Your task to perform on an android device: toggle improve location accuracy Image 0: 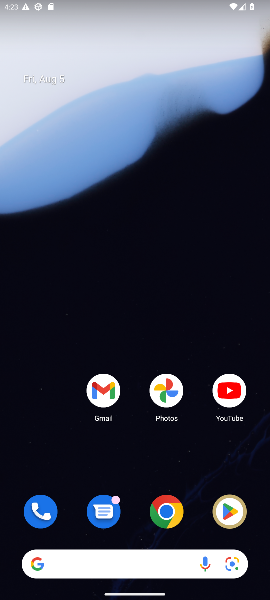
Step 0: drag from (141, 529) to (127, 54)
Your task to perform on an android device: toggle improve location accuracy Image 1: 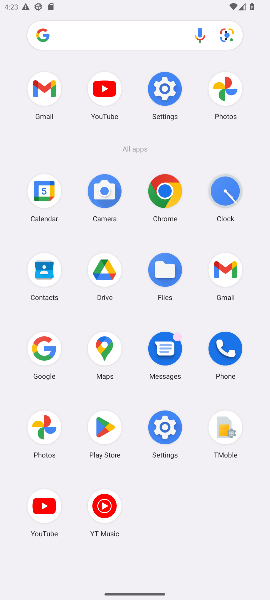
Step 1: click (170, 432)
Your task to perform on an android device: toggle improve location accuracy Image 2: 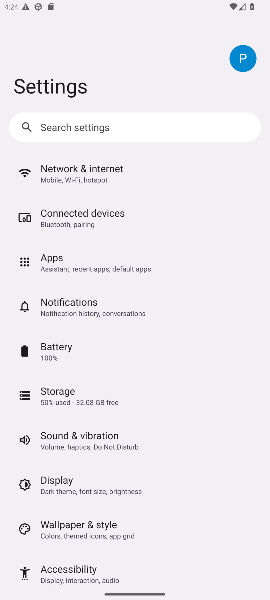
Step 2: drag from (80, 488) to (54, 159)
Your task to perform on an android device: toggle improve location accuracy Image 3: 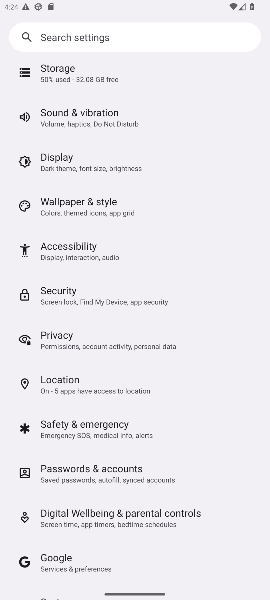
Step 3: click (67, 377)
Your task to perform on an android device: toggle improve location accuracy Image 4: 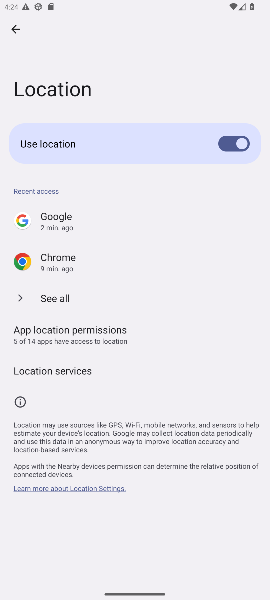
Step 4: click (45, 299)
Your task to perform on an android device: toggle improve location accuracy Image 5: 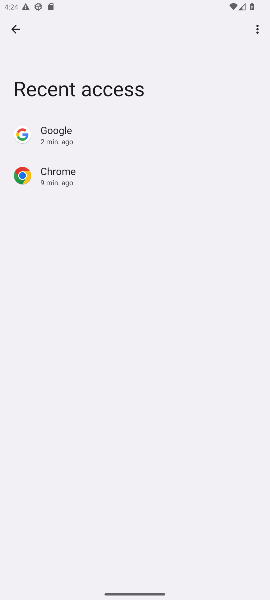
Step 5: click (13, 29)
Your task to perform on an android device: toggle improve location accuracy Image 6: 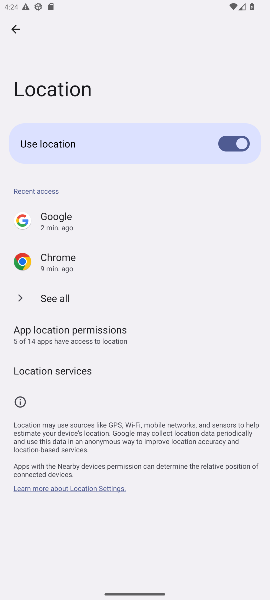
Step 6: click (85, 364)
Your task to perform on an android device: toggle improve location accuracy Image 7: 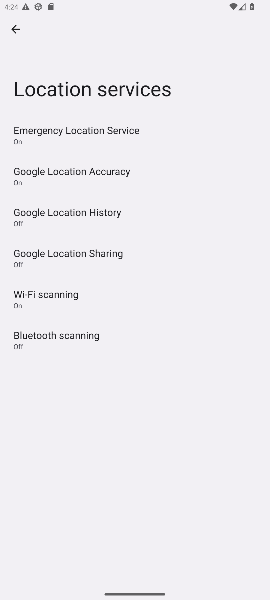
Step 7: click (95, 167)
Your task to perform on an android device: toggle improve location accuracy Image 8: 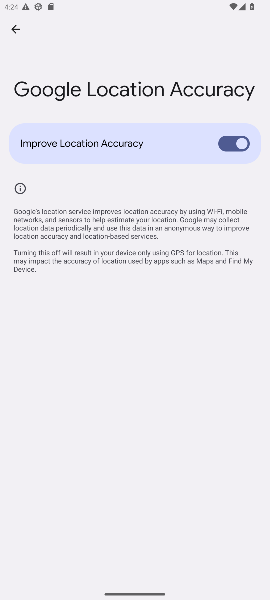
Step 8: click (232, 139)
Your task to perform on an android device: toggle improve location accuracy Image 9: 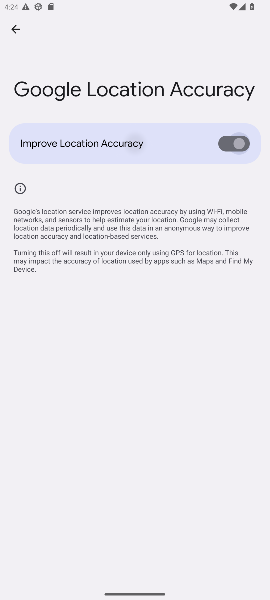
Step 9: task complete